Your task to perform on an android device: delete a single message in the gmail app Image 0: 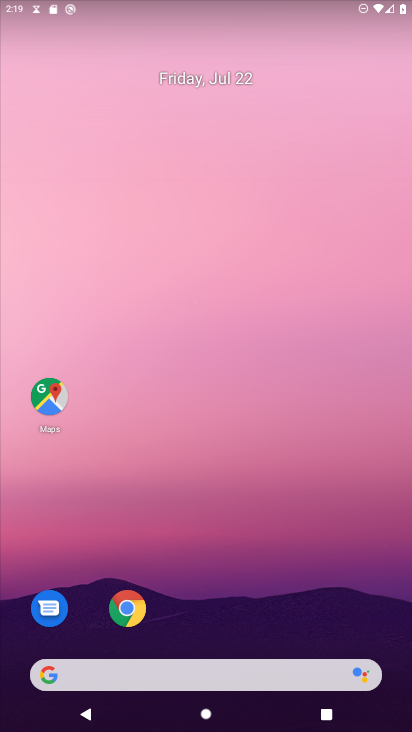
Step 0: drag from (272, 599) to (299, 111)
Your task to perform on an android device: delete a single message in the gmail app Image 1: 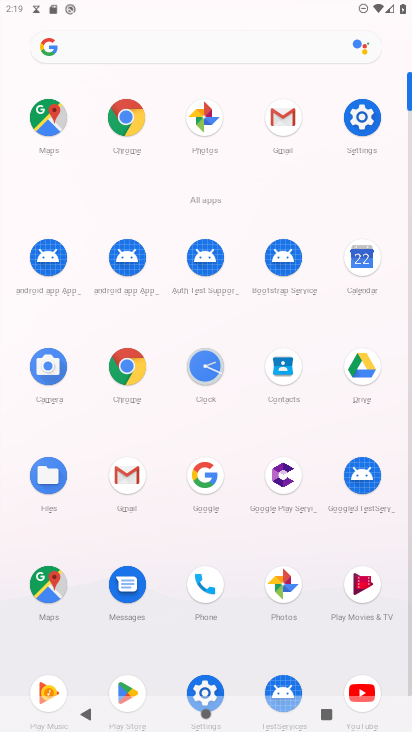
Step 1: click (281, 123)
Your task to perform on an android device: delete a single message in the gmail app Image 2: 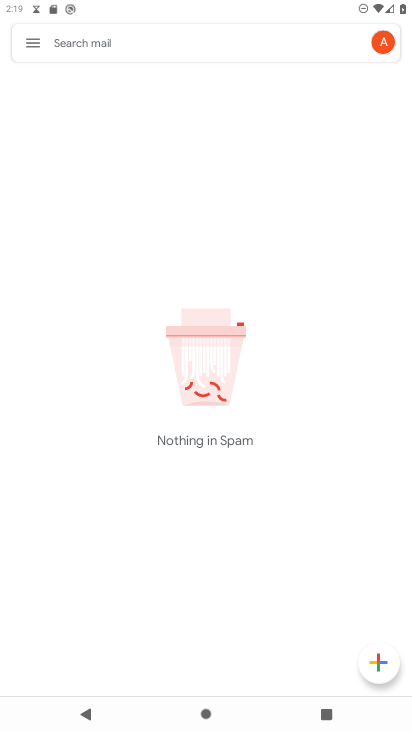
Step 2: click (36, 54)
Your task to perform on an android device: delete a single message in the gmail app Image 3: 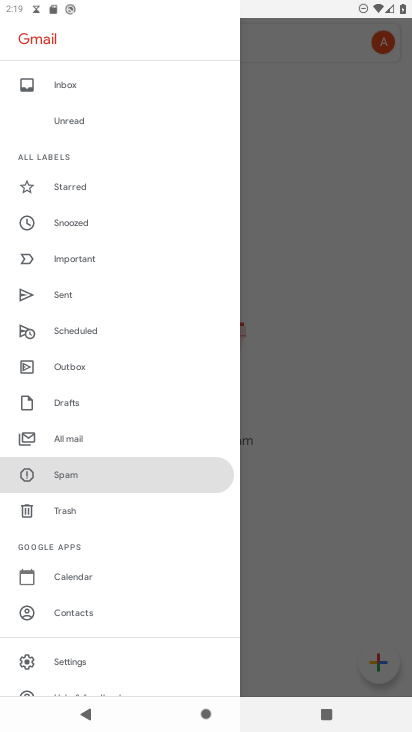
Step 3: click (86, 430)
Your task to perform on an android device: delete a single message in the gmail app Image 4: 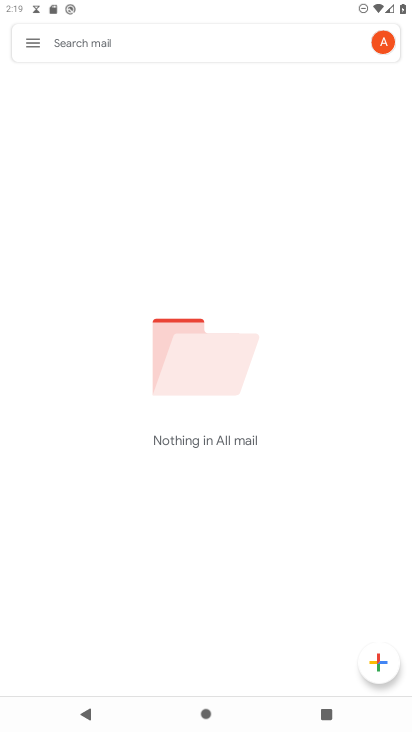
Step 4: task complete